Your task to perform on an android device: check the backup settings in the google photos Image 0: 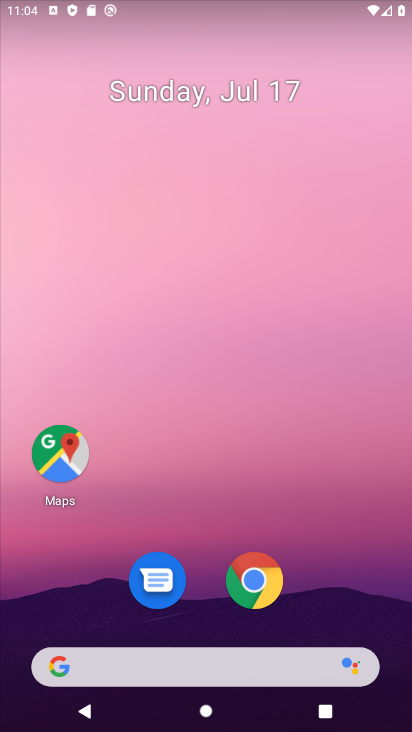
Step 0: drag from (252, 597) to (300, 217)
Your task to perform on an android device: check the backup settings in the google photos Image 1: 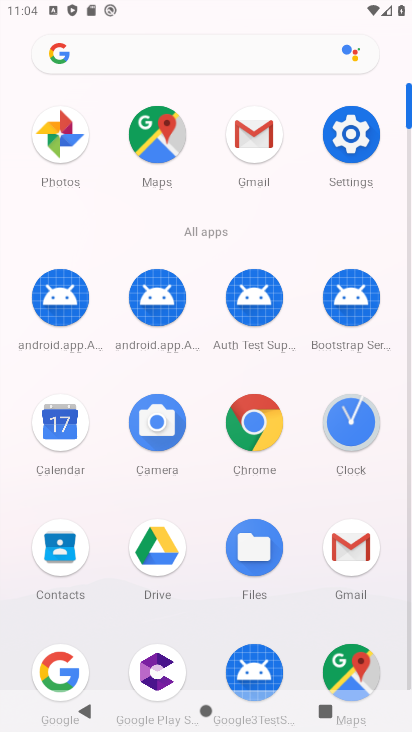
Step 1: drag from (201, 525) to (281, 267)
Your task to perform on an android device: check the backup settings in the google photos Image 2: 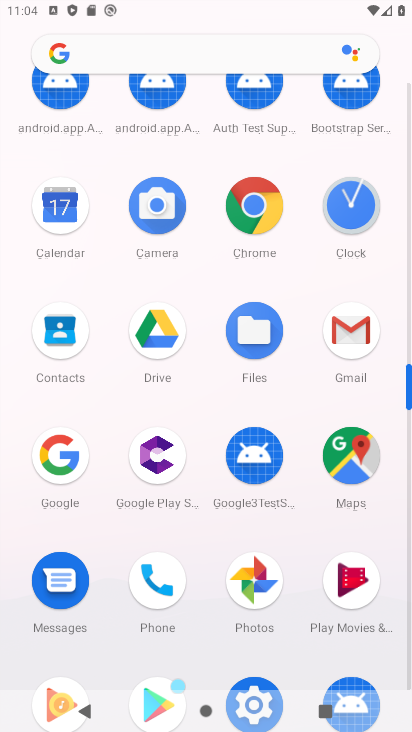
Step 2: click (246, 606)
Your task to perform on an android device: check the backup settings in the google photos Image 3: 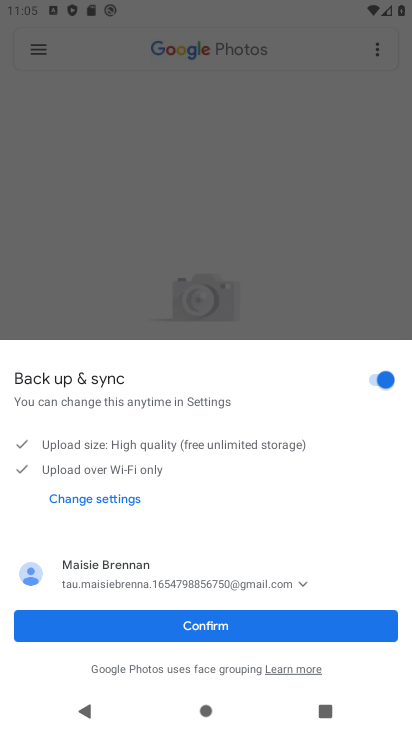
Step 3: click (239, 621)
Your task to perform on an android device: check the backup settings in the google photos Image 4: 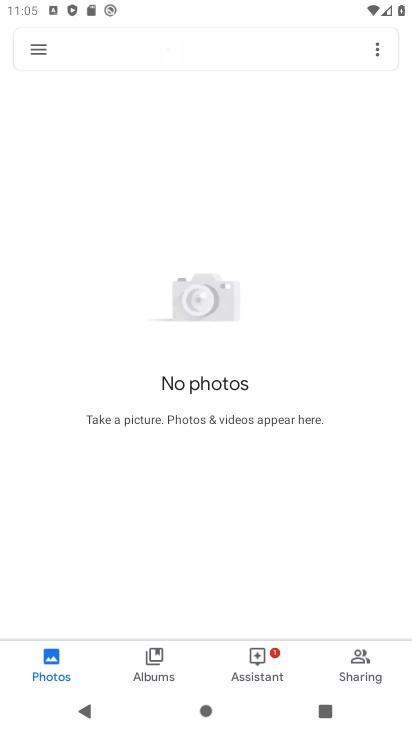
Step 4: click (47, 54)
Your task to perform on an android device: check the backup settings in the google photos Image 5: 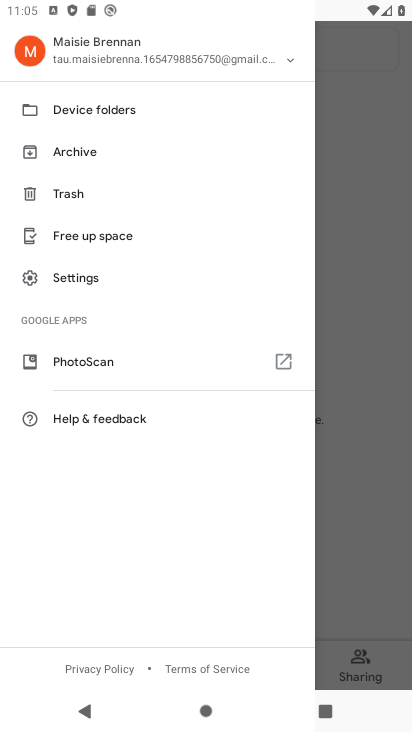
Step 5: click (78, 284)
Your task to perform on an android device: check the backup settings in the google photos Image 6: 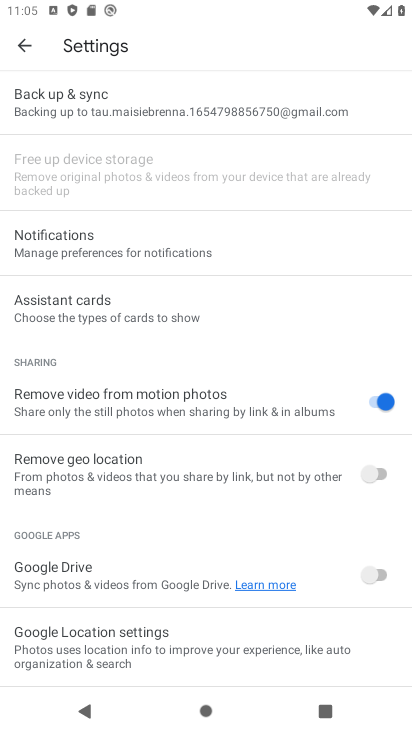
Step 6: click (125, 113)
Your task to perform on an android device: check the backup settings in the google photos Image 7: 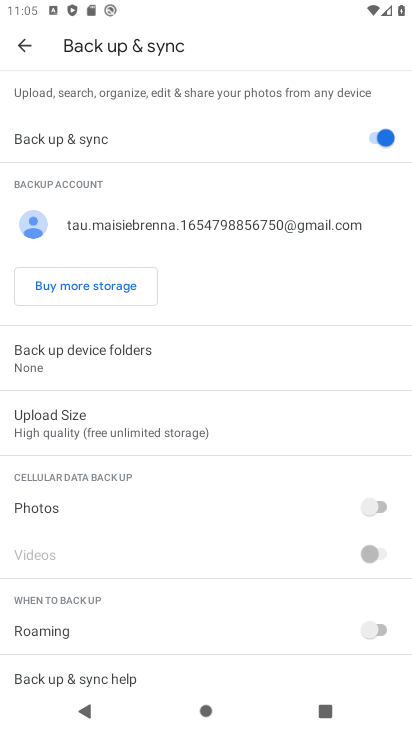
Step 7: task complete